Your task to perform on an android device: toggle airplane mode Image 0: 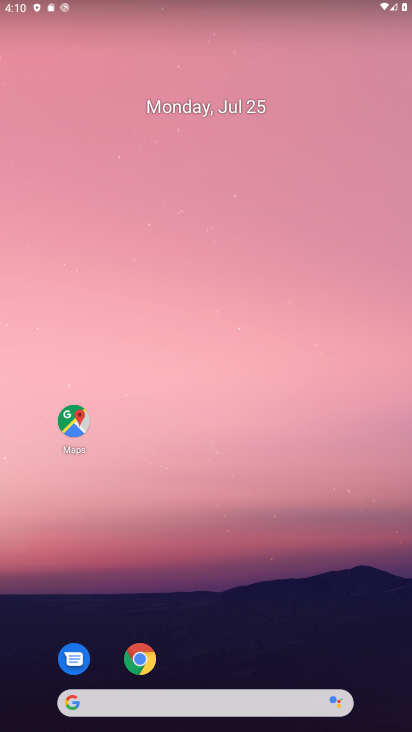
Step 0: press back button
Your task to perform on an android device: toggle airplane mode Image 1: 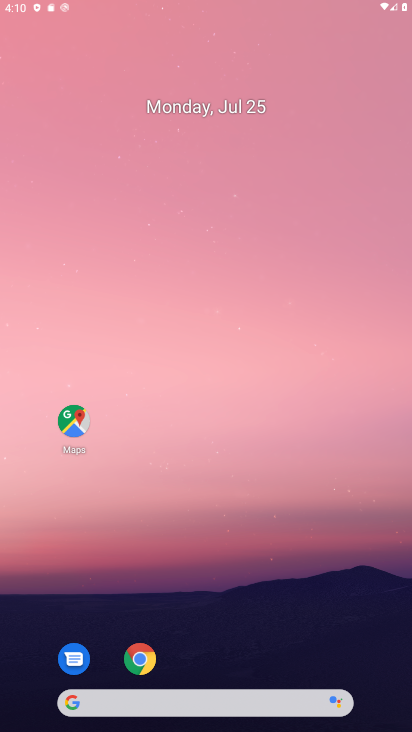
Step 1: drag from (169, 476) to (147, 138)
Your task to perform on an android device: toggle airplane mode Image 2: 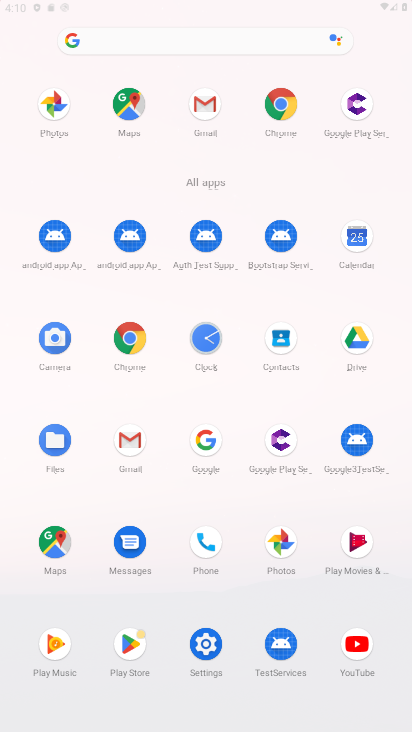
Step 2: drag from (254, 675) to (240, 115)
Your task to perform on an android device: toggle airplane mode Image 3: 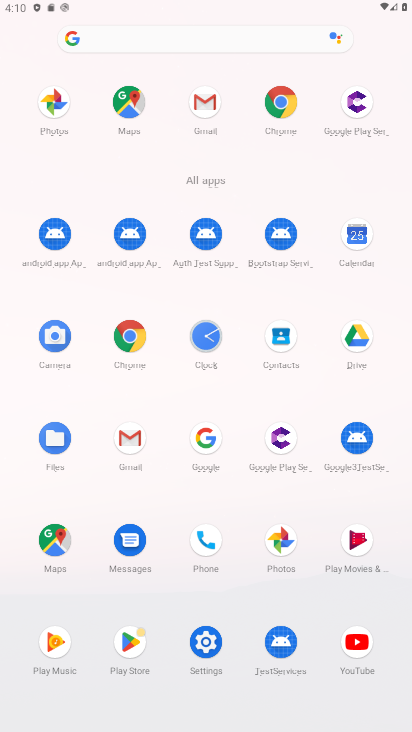
Step 3: click (210, 646)
Your task to perform on an android device: toggle airplane mode Image 4: 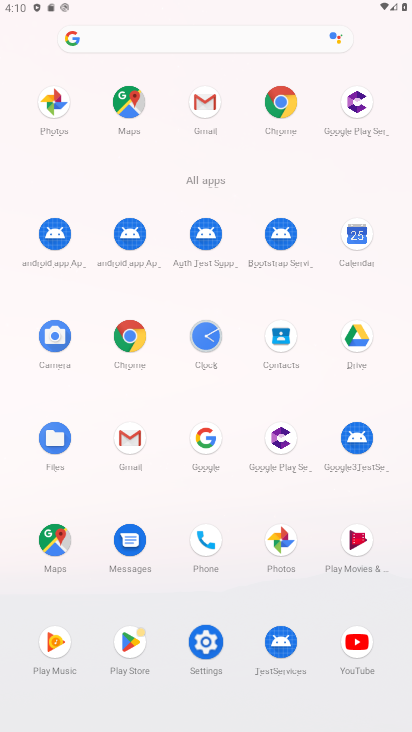
Step 4: click (210, 646)
Your task to perform on an android device: toggle airplane mode Image 5: 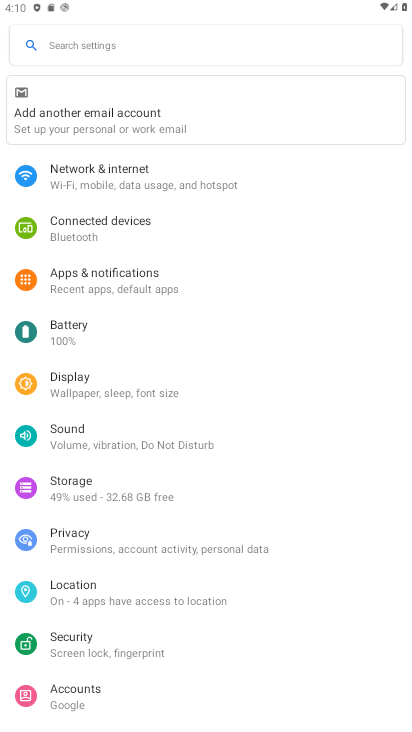
Step 5: click (97, 178)
Your task to perform on an android device: toggle airplane mode Image 6: 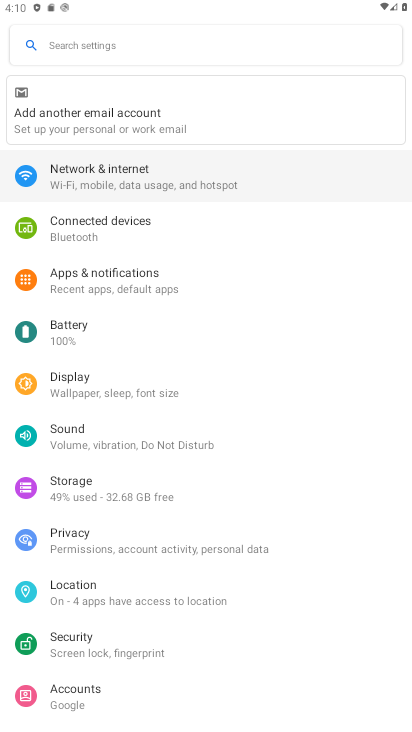
Step 6: click (97, 178)
Your task to perform on an android device: toggle airplane mode Image 7: 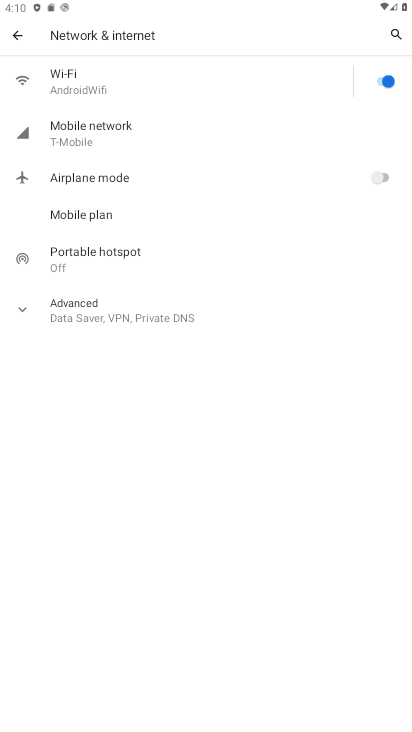
Step 7: click (374, 178)
Your task to perform on an android device: toggle airplane mode Image 8: 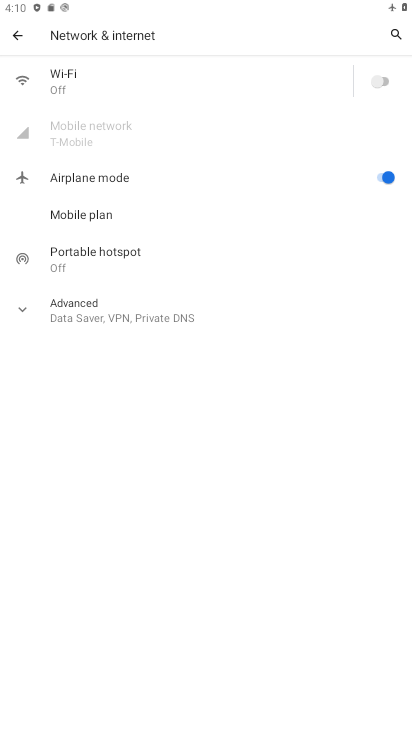
Step 8: task complete